Your task to perform on an android device: Check the news Image 0: 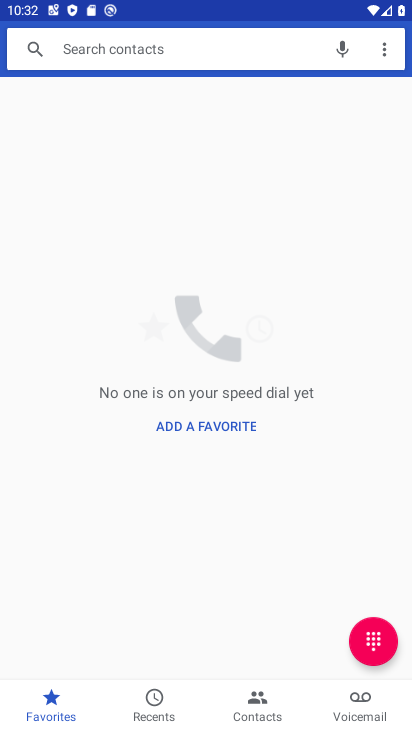
Step 0: press home button
Your task to perform on an android device: Check the news Image 1: 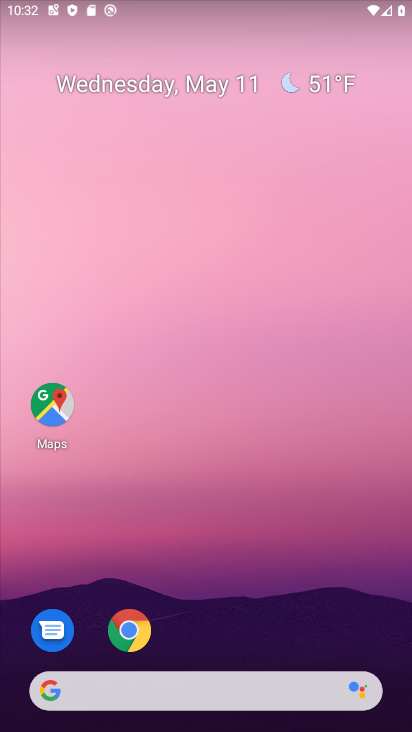
Step 1: task complete